Your task to perform on an android device: turn on data saver in the chrome app Image 0: 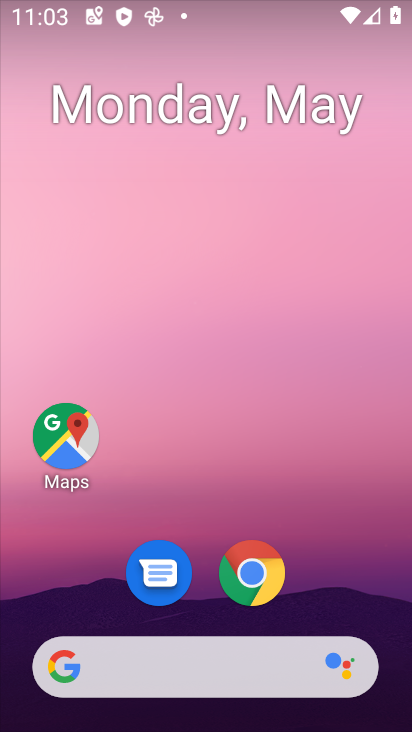
Step 0: click (283, 594)
Your task to perform on an android device: turn on data saver in the chrome app Image 1: 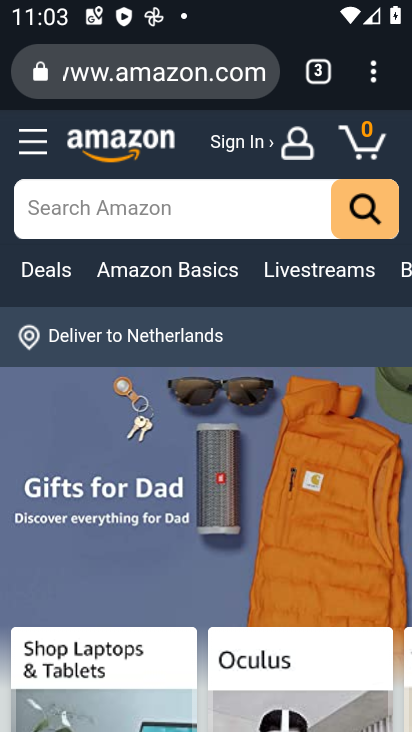
Step 1: click (380, 80)
Your task to perform on an android device: turn on data saver in the chrome app Image 2: 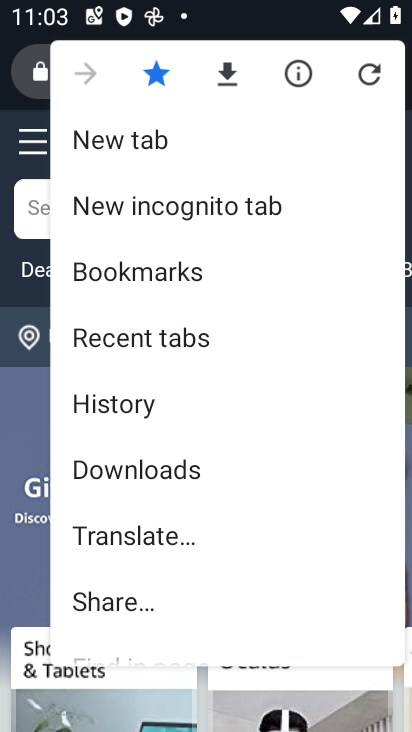
Step 2: drag from (233, 577) to (224, 239)
Your task to perform on an android device: turn on data saver in the chrome app Image 3: 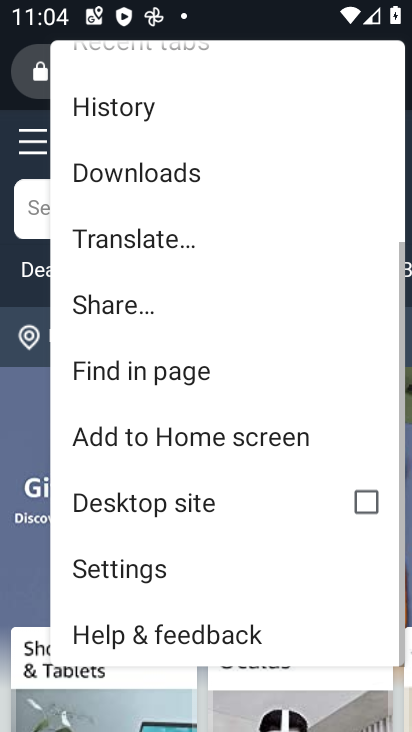
Step 3: click (191, 572)
Your task to perform on an android device: turn on data saver in the chrome app Image 4: 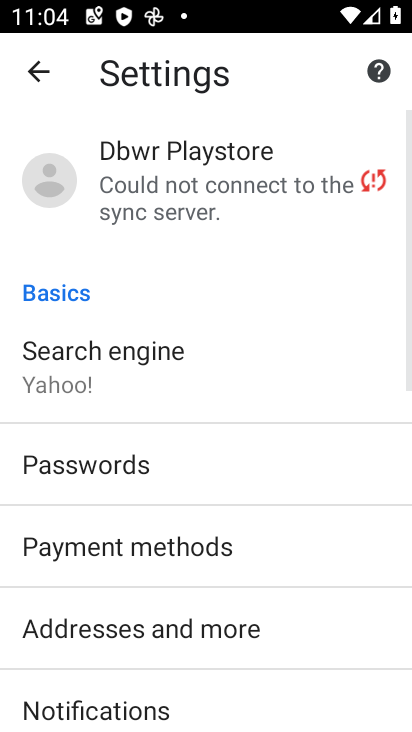
Step 4: drag from (191, 572) to (189, 125)
Your task to perform on an android device: turn on data saver in the chrome app Image 5: 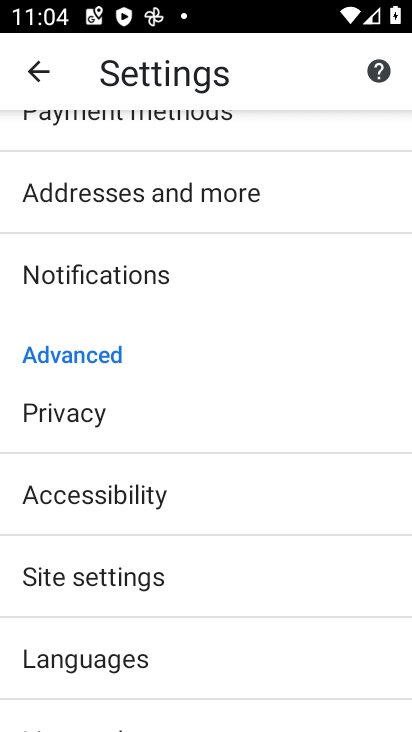
Step 5: drag from (233, 638) to (200, 318)
Your task to perform on an android device: turn on data saver in the chrome app Image 6: 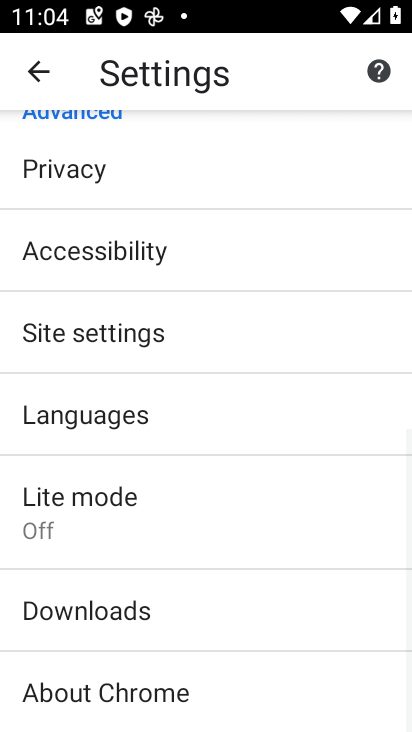
Step 6: click (239, 526)
Your task to perform on an android device: turn on data saver in the chrome app Image 7: 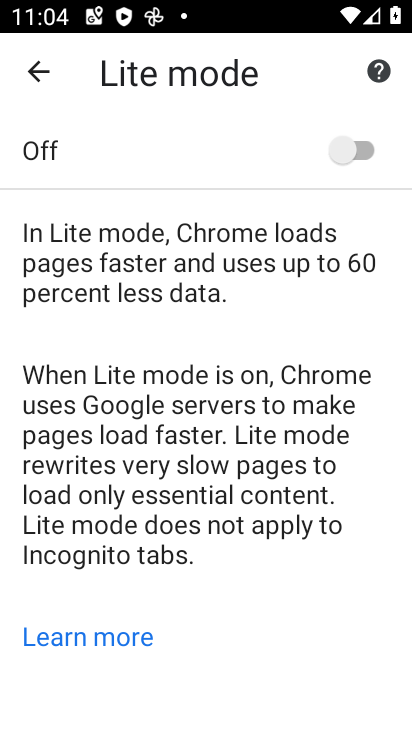
Step 7: click (376, 149)
Your task to perform on an android device: turn on data saver in the chrome app Image 8: 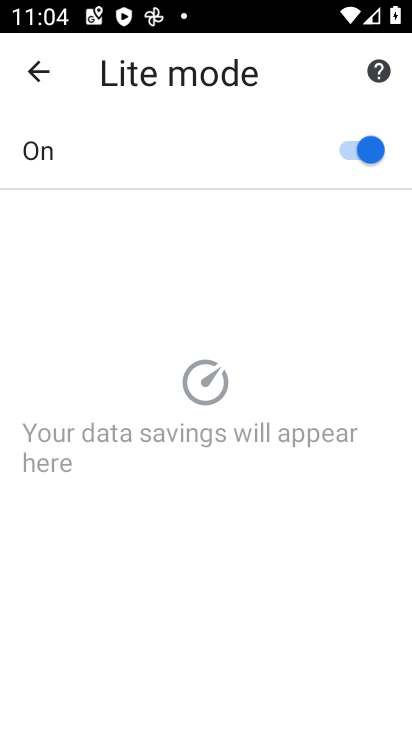
Step 8: task complete